Your task to perform on an android device: install app "Etsy: Buy & Sell Unique Items" Image 0: 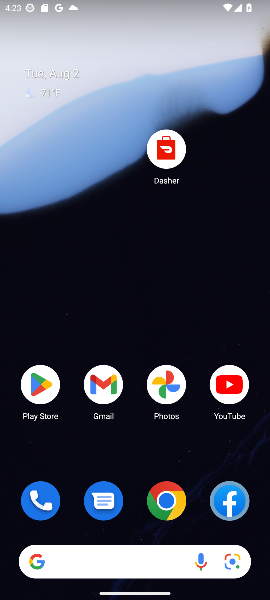
Step 0: click (48, 377)
Your task to perform on an android device: install app "Etsy: Buy & Sell Unique Items" Image 1: 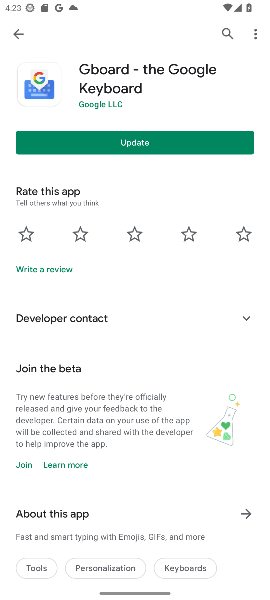
Step 1: click (231, 32)
Your task to perform on an android device: install app "Etsy: Buy & Sell Unique Items" Image 2: 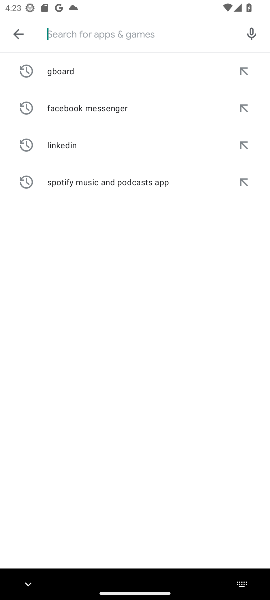
Step 2: type "Etsy: Buy & Sell Unique Items"
Your task to perform on an android device: install app "Etsy: Buy & Sell Unique Items" Image 3: 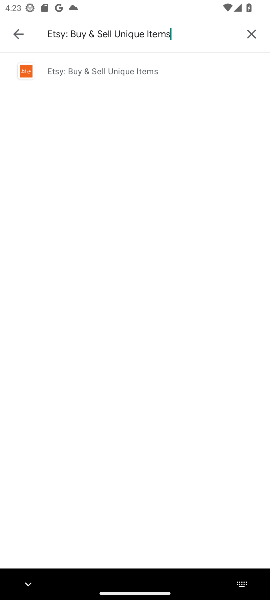
Step 3: click (81, 80)
Your task to perform on an android device: install app "Etsy: Buy & Sell Unique Items" Image 4: 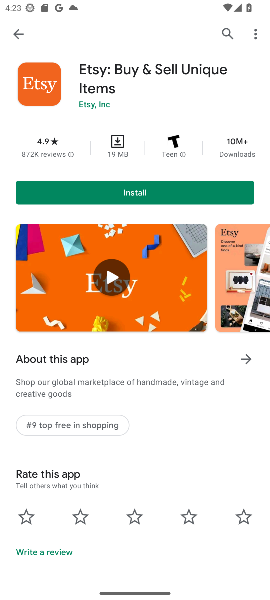
Step 4: click (126, 197)
Your task to perform on an android device: install app "Etsy: Buy & Sell Unique Items" Image 5: 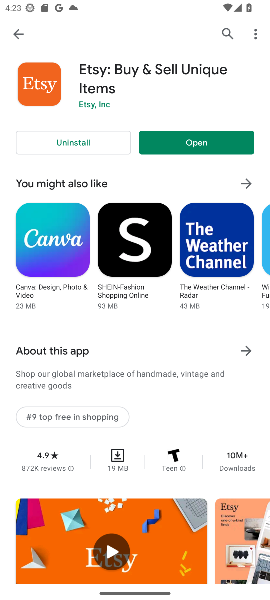
Step 5: task complete